Your task to perform on an android device: open app "LiveIn - Share Your Moment" (install if not already installed) Image 0: 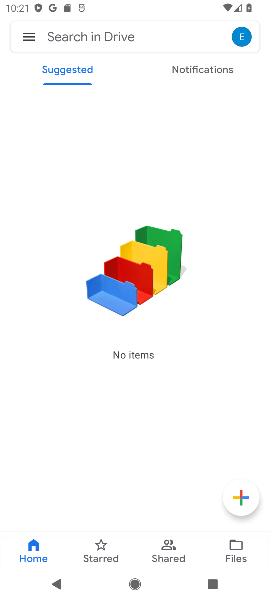
Step 0: press home button
Your task to perform on an android device: open app "LiveIn - Share Your Moment" (install if not already installed) Image 1: 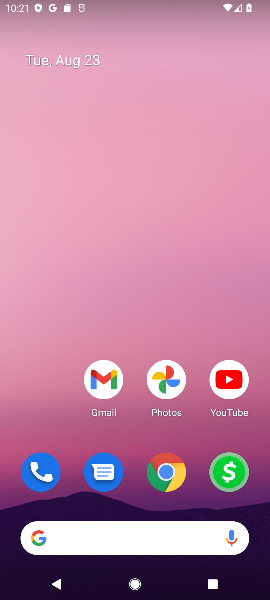
Step 1: drag from (155, 515) to (179, 12)
Your task to perform on an android device: open app "LiveIn - Share Your Moment" (install if not already installed) Image 2: 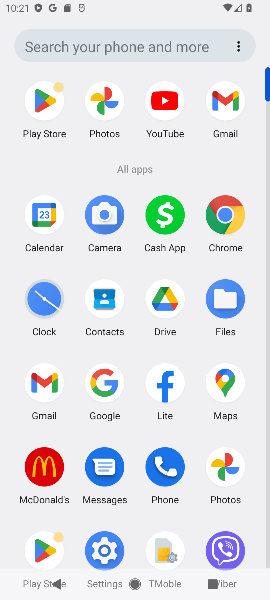
Step 2: drag from (155, 524) to (189, 1)
Your task to perform on an android device: open app "LiveIn - Share Your Moment" (install if not already installed) Image 3: 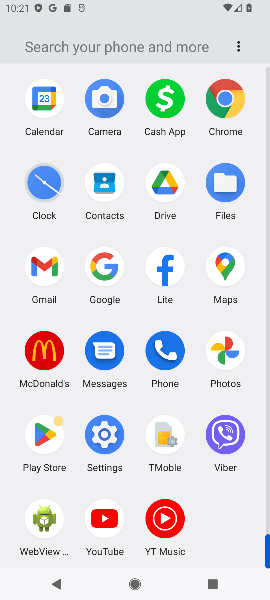
Step 3: click (41, 436)
Your task to perform on an android device: open app "LiveIn - Share Your Moment" (install if not already installed) Image 4: 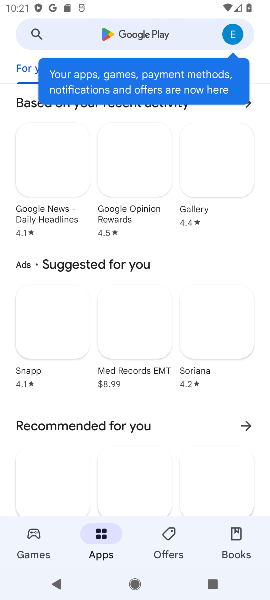
Step 4: click (146, 28)
Your task to perform on an android device: open app "LiveIn - Share Your Moment" (install if not already installed) Image 5: 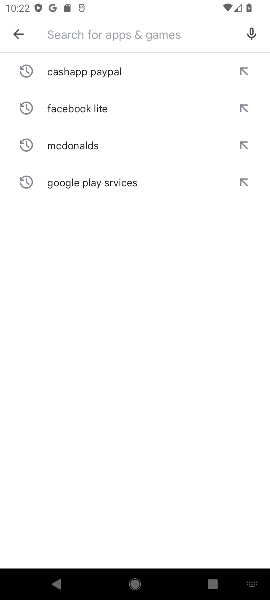
Step 5: type "LiveIn"
Your task to perform on an android device: open app "LiveIn - Share Your Moment" (install if not already installed) Image 6: 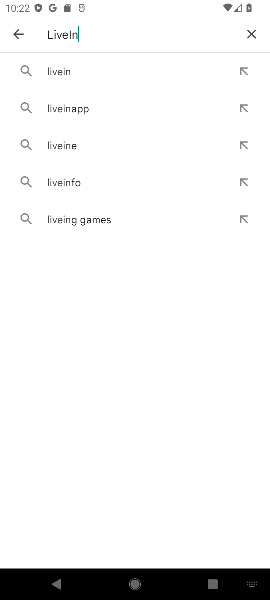
Step 6: click (60, 70)
Your task to perform on an android device: open app "LiveIn - Share Your Moment" (install if not already installed) Image 7: 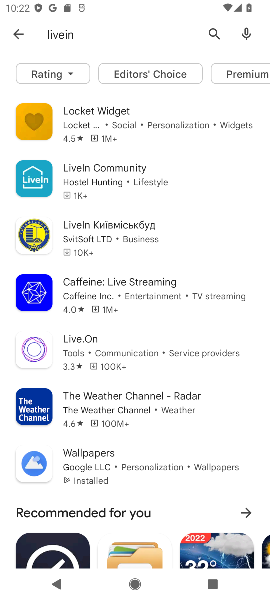
Step 7: task complete